Your task to perform on an android device: Open Wikipedia Image 0: 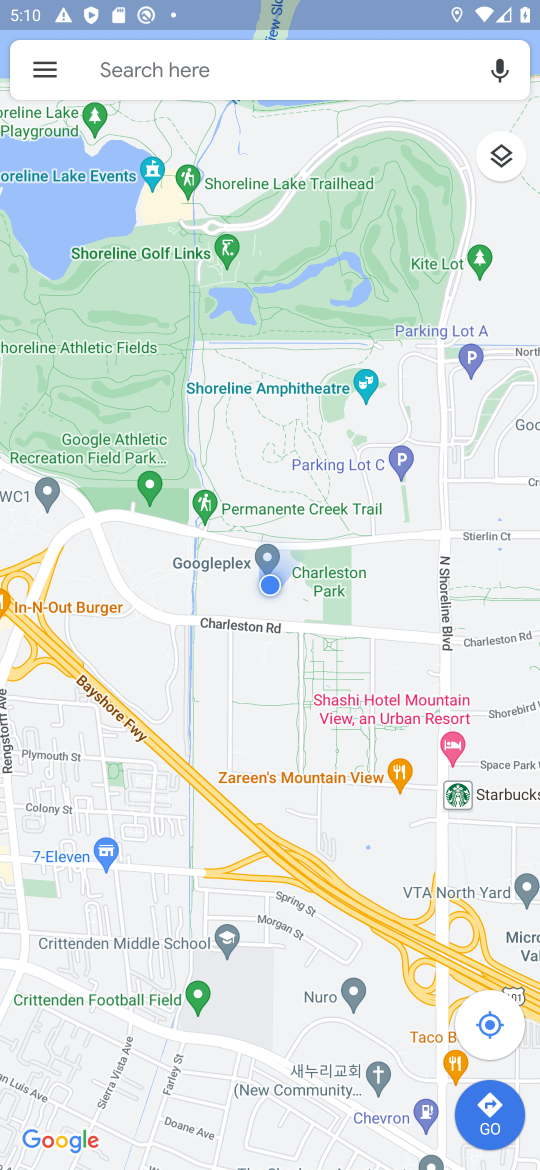
Step 0: press home button
Your task to perform on an android device: Open Wikipedia Image 1: 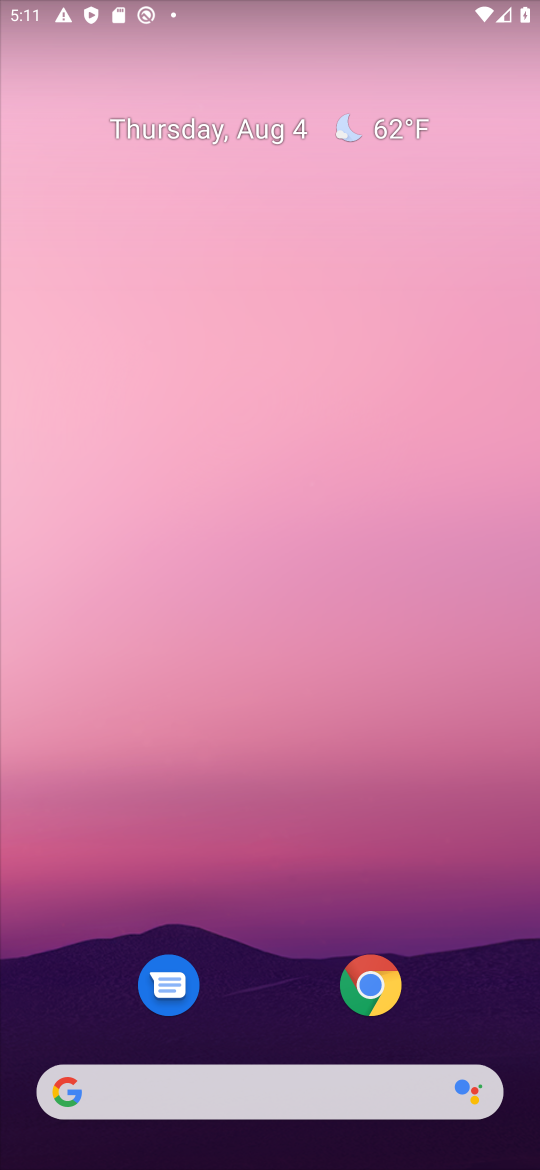
Step 1: click (359, 1003)
Your task to perform on an android device: Open Wikipedia Image 2: 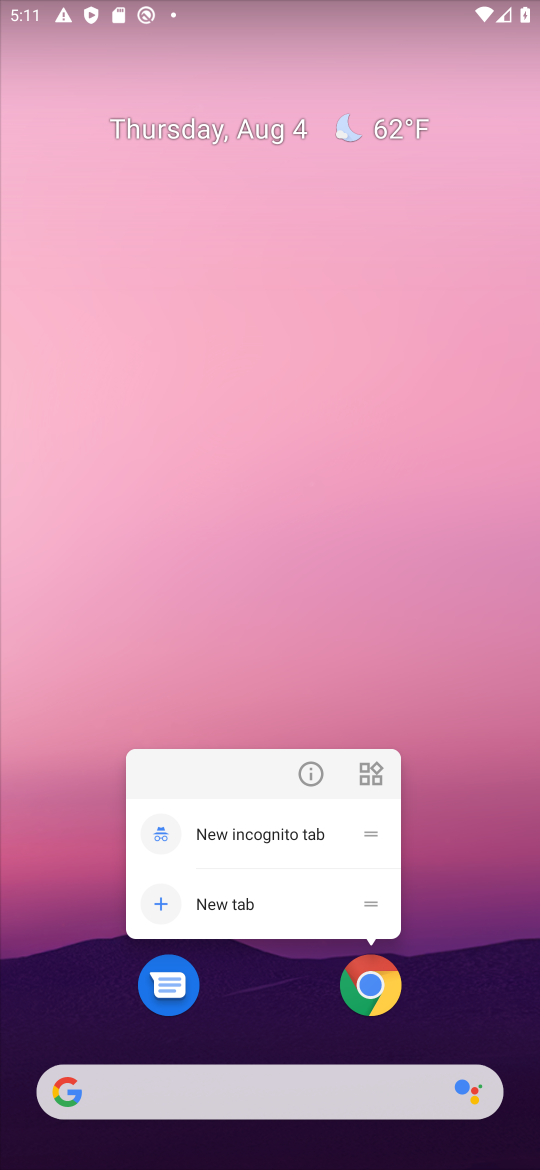
Step 2: click (345, 1008)
Your task to perform on an android device: Open Wikipedia Image 3: 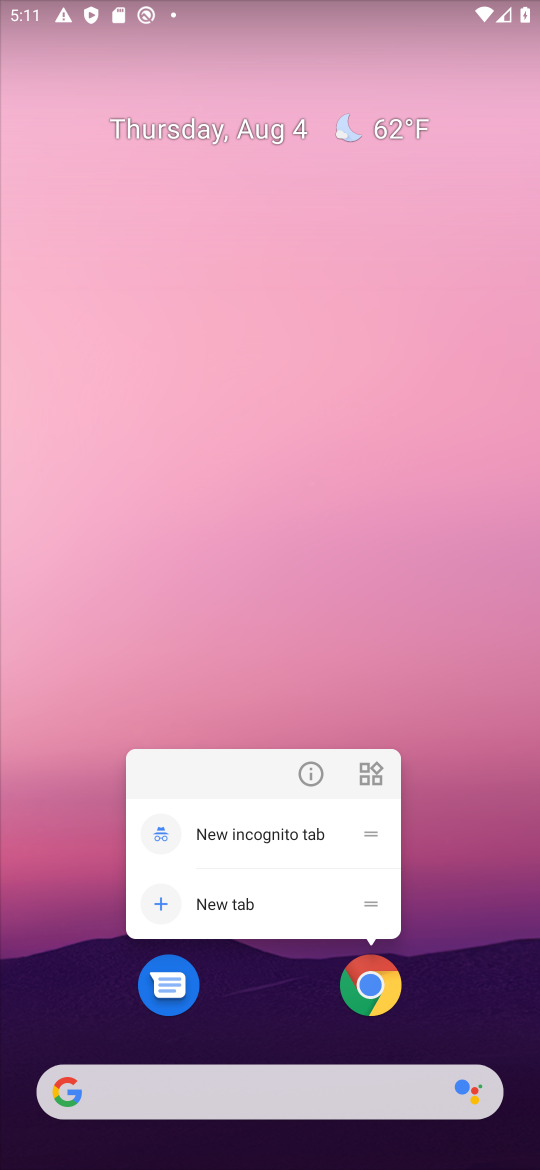
Step 3: click (359, 1012)
Your task to perform on an android device: Open Wikipedia Image 4: 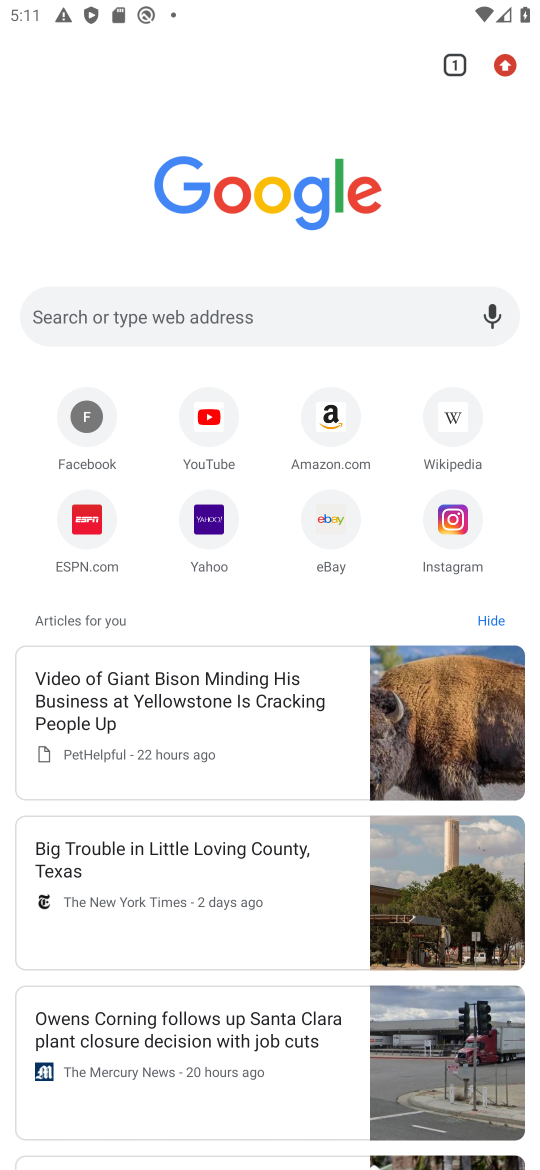
Step 4: click (441, 442)
Your task to perform on an android device: Open Wikipedia Image 5: 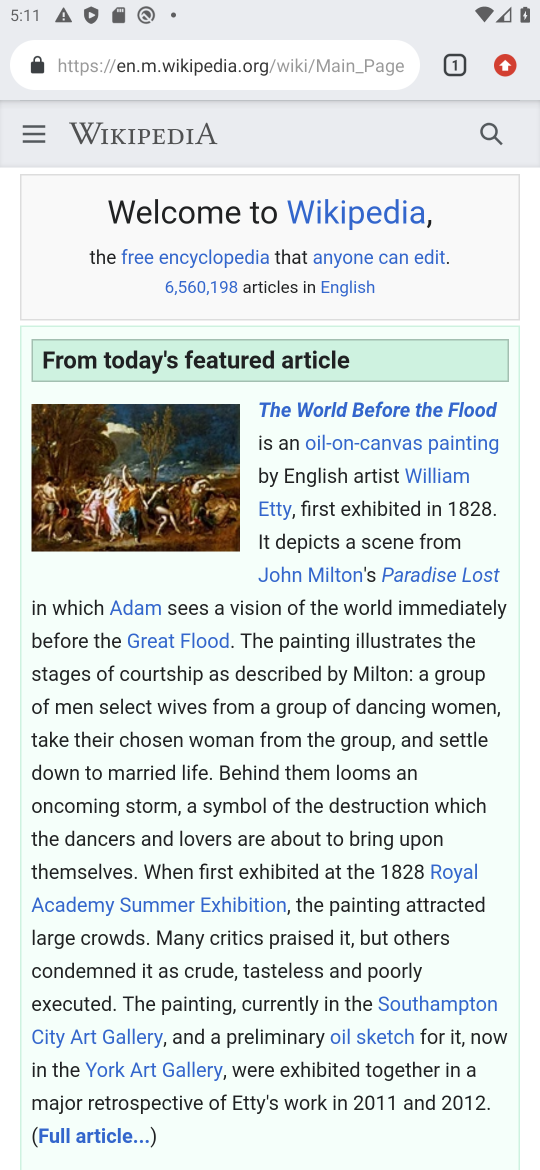
Step 5: task complete